Your task to perform on an android device: turn off translation in the chrome app Image 0: 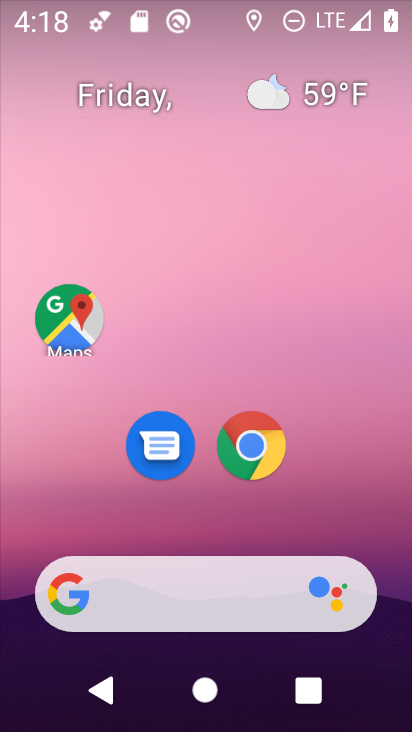
Step 0: click (252, 445)
Your task to perform on an android device: turn off translation in the chrome app Image 1: 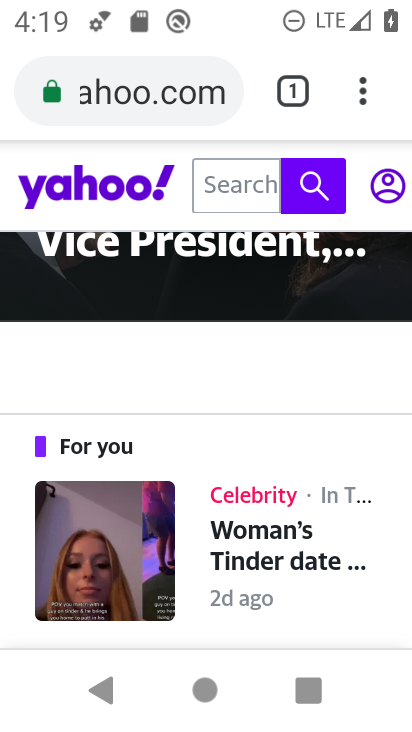
Step 1: click (363, 100)
Your task to perform on an android device: turn off translation in the chrome app Image 2: 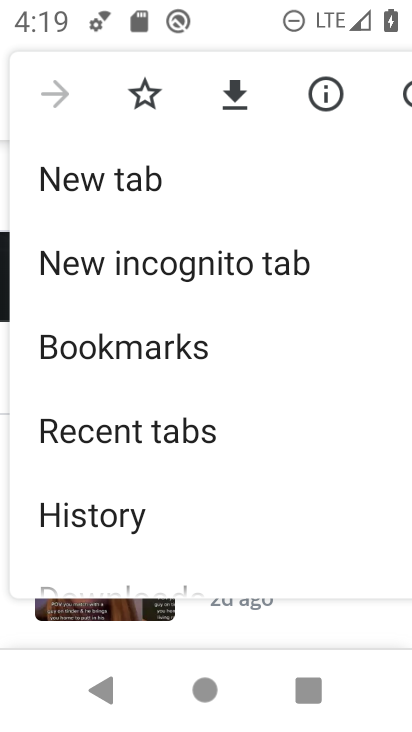
Step 2: drag from (213, 515) to (254, 257)
Your task to perform on an android device: turn off translation in the chrome app Image 3: 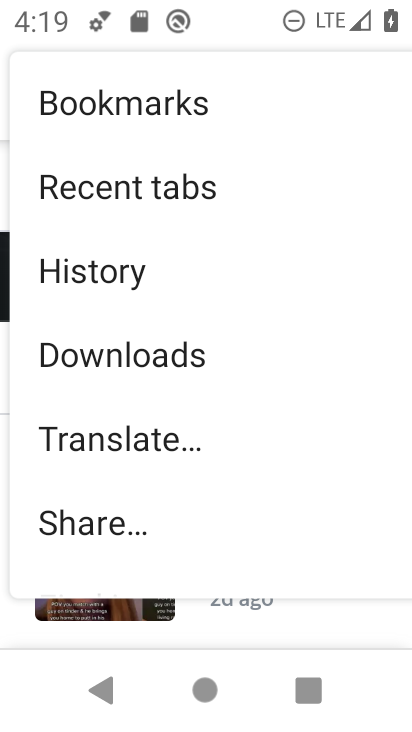
Step 3: drag from (230, 520) to (249, 199)
Your task to perform on an android device: turn off translation in the chrome app Image 4: 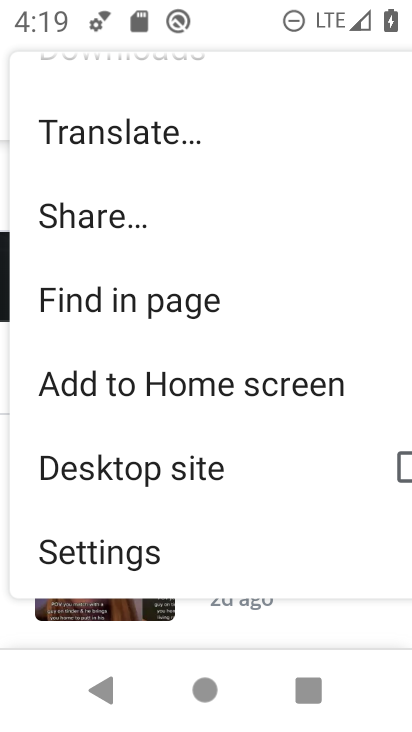
Step 4: drag from (239, 500) to (288, 244)
Your task to perform on an android device: turn off translation in the chrome app Image 5: 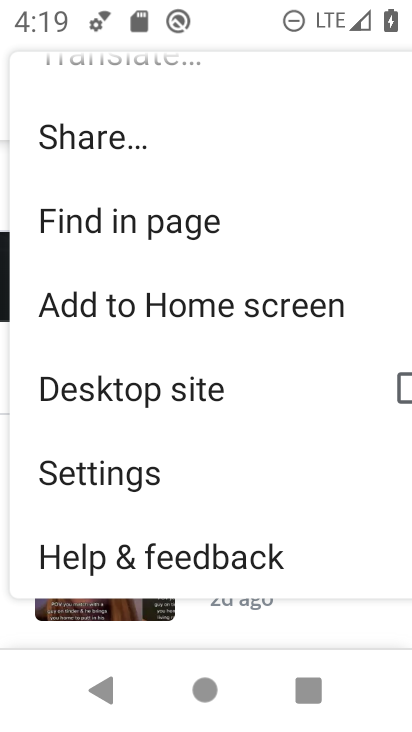
Step 5: click (95, 481)
Your task to perform on an android device: turn off translation in the chrome app Image 6: 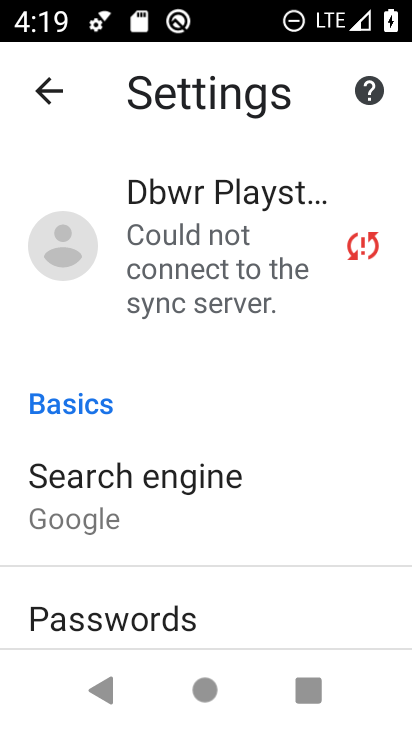
Step 6: drag from (281, 588) to (259, 191)
Your task to perform on an android device: turn off translation in the chrome app Image 7: 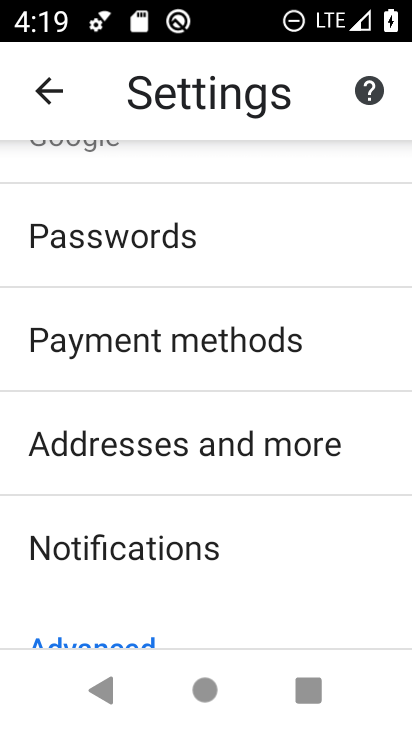
Step 7: drag from (267, 520) to (282, 201)
Your task to perform on an android device: turn off translation in the chrome app Image 8: 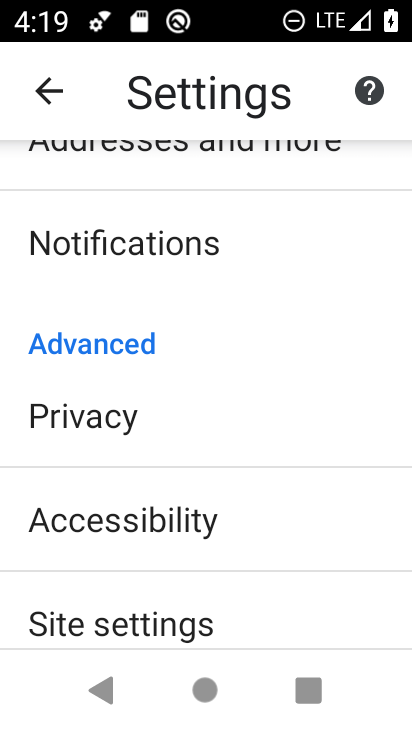
Step 8: drag from (244, 542) to (254, 238)
Your task to perform on an android device: turn off translation in the chrome app Image 9: 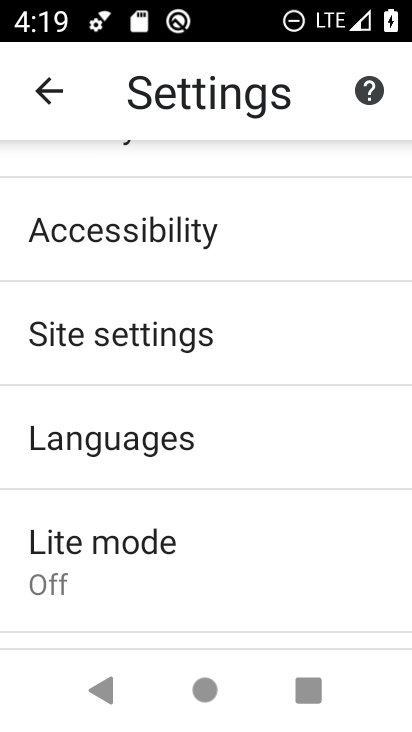
Step 9: click (90, 433)
Your task to perform on an android device: turn off translation in the chrome app Image 10: 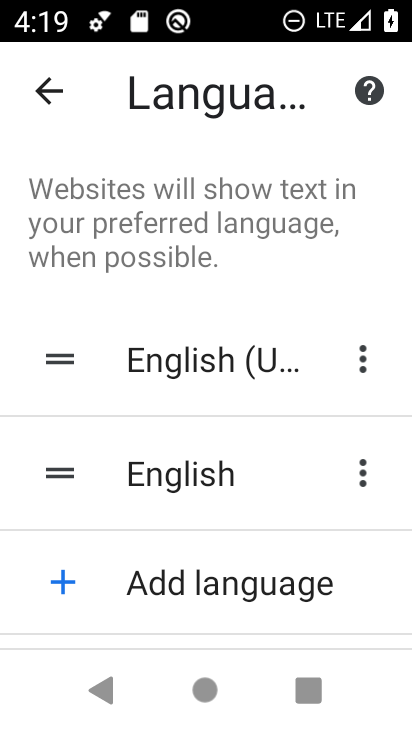
Step 10: task complete